Your task to perform on an android device: turn off location history Image 0: 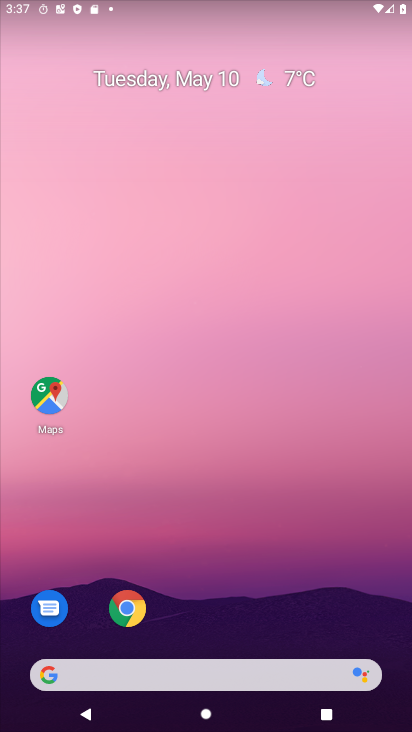
Step 0: click (48, 403)
Your task to perform on an android device: turn off location history Image 1: 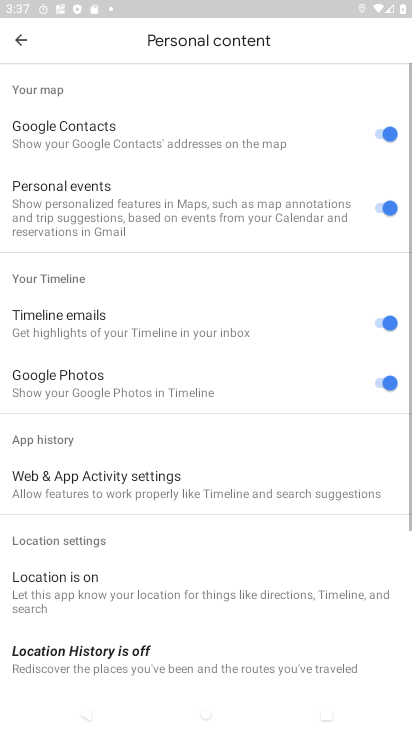
Step 1: click (111, 662)
Your task to perform on an android device: turn off location history Image 2: 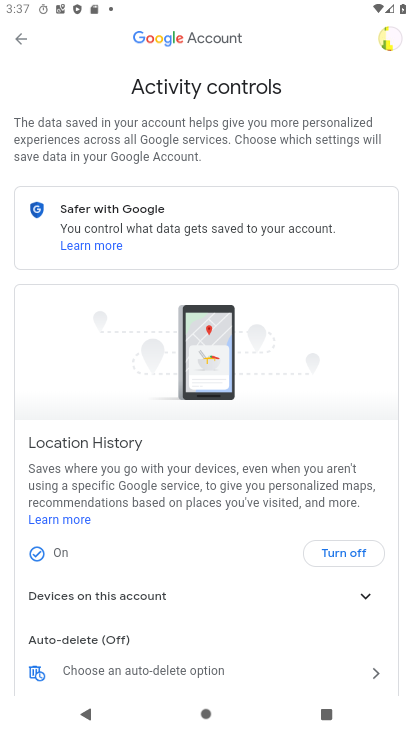
Step 2: click (350, 555)
Your task to perform on an android device: turn off location history Image 3: 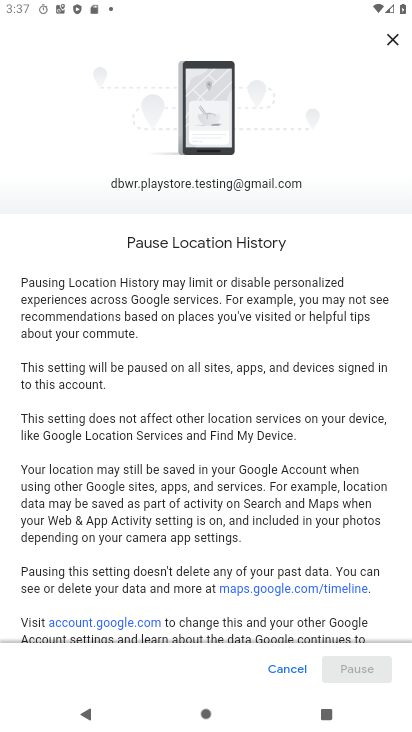
Step 3: drag from (279, 587) to (262, 82)
Your task to perform on an android device: turn off location history Image 4: 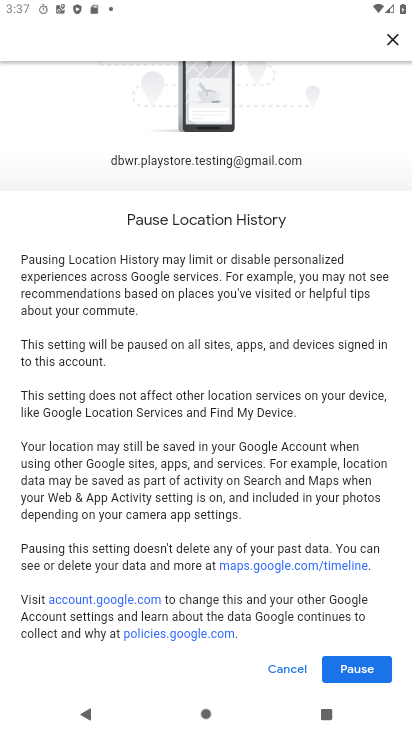
Step 4: click (351, 674)
Your task to perform on an android device: turn off location history Image 5: 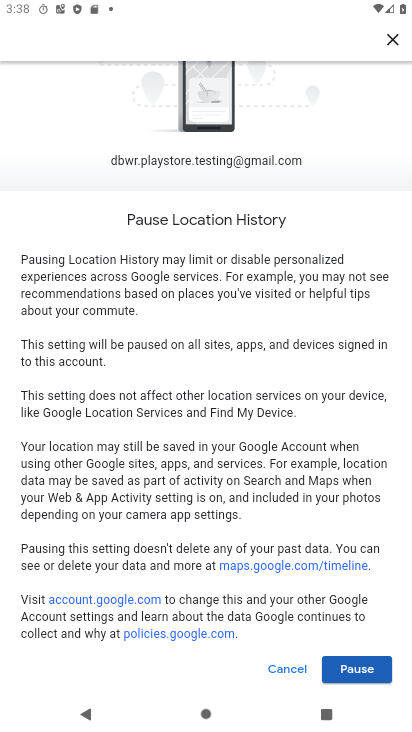
Step 5: drag from (254, 617) to (234, 481)
Your task to perform on an android device: turn off location history Image 6: 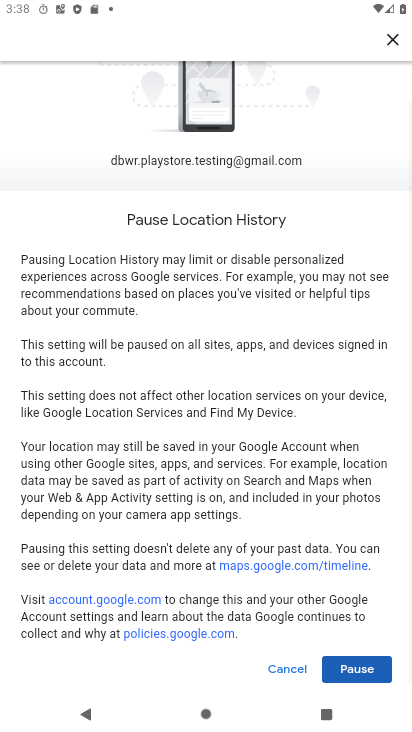
Step 6: click (356, 677)
Your task to perform on an android device: turn off location history Image 7: 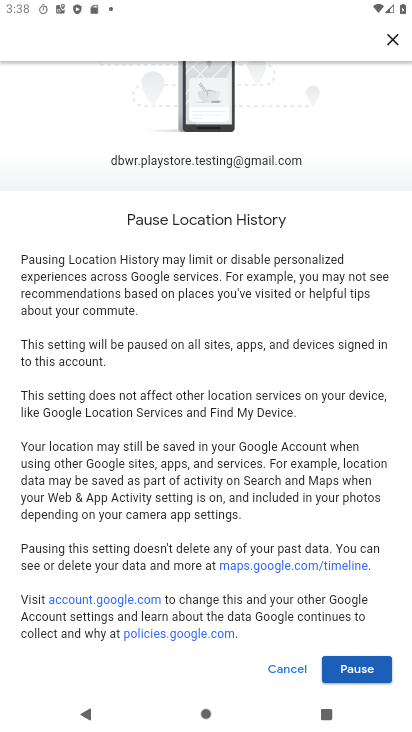
Step 7: click (364, 670)
Your task to perform on an android device: turn off location history Image 8: 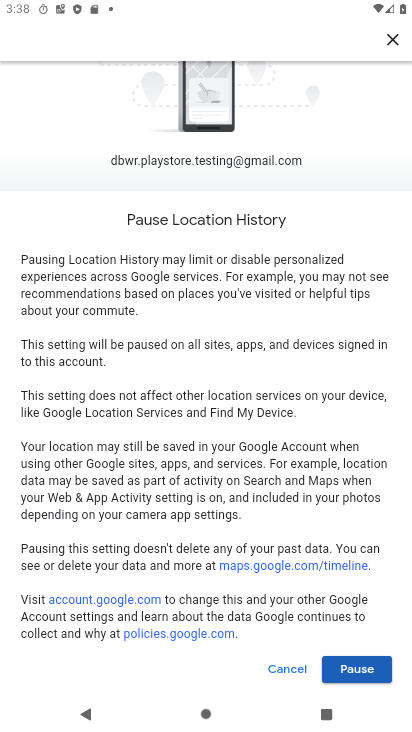
Step 8: click (351, 674)
Your task to perform on an android device: turn off location history Image 9: 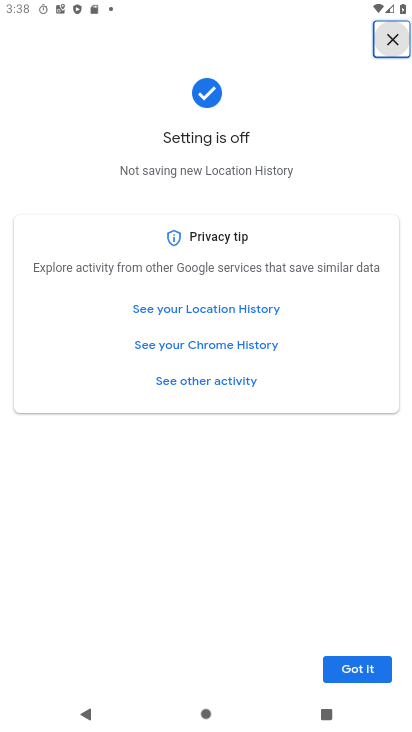
Step 9: click (365, 676)
Your task to perform on an android device: turn off location history Image 10: 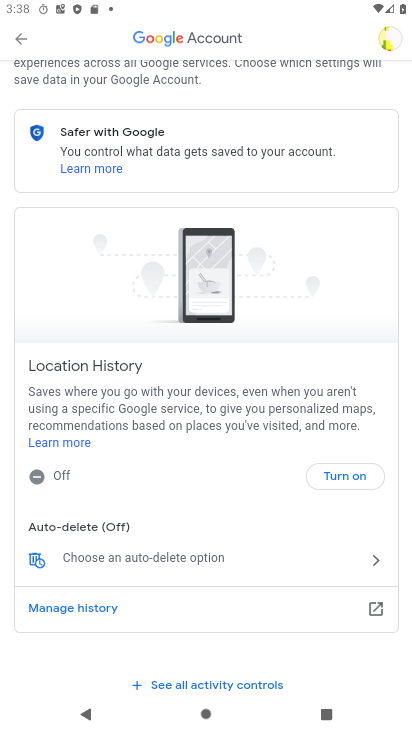
Step 10: task complete